Your task to perform on an android device: Open Wikipedia Image 0: 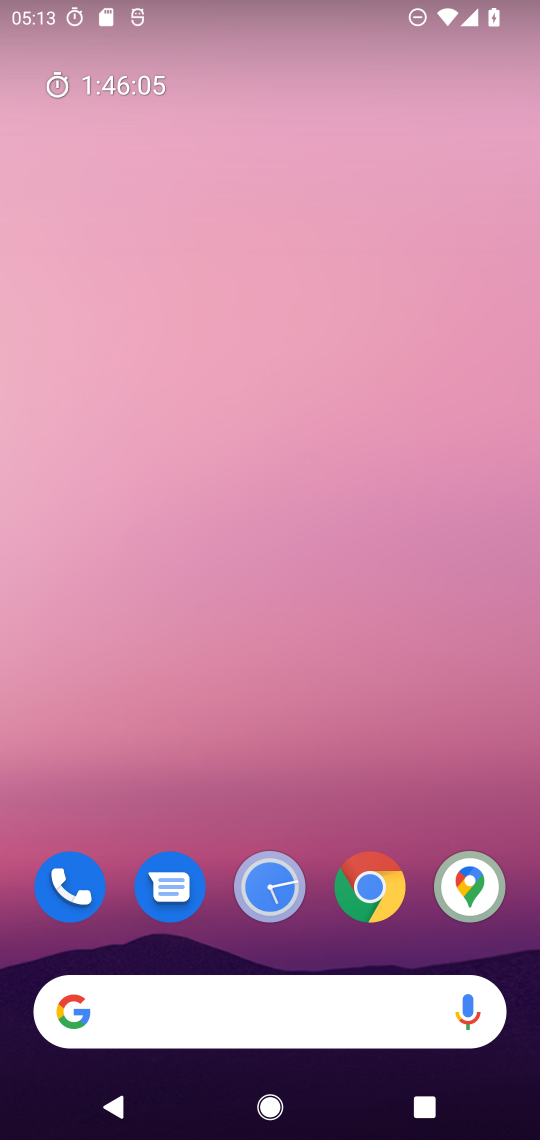
Step 0: press home button
Your task to perform on an android device: Open Wikipedia Image 1: 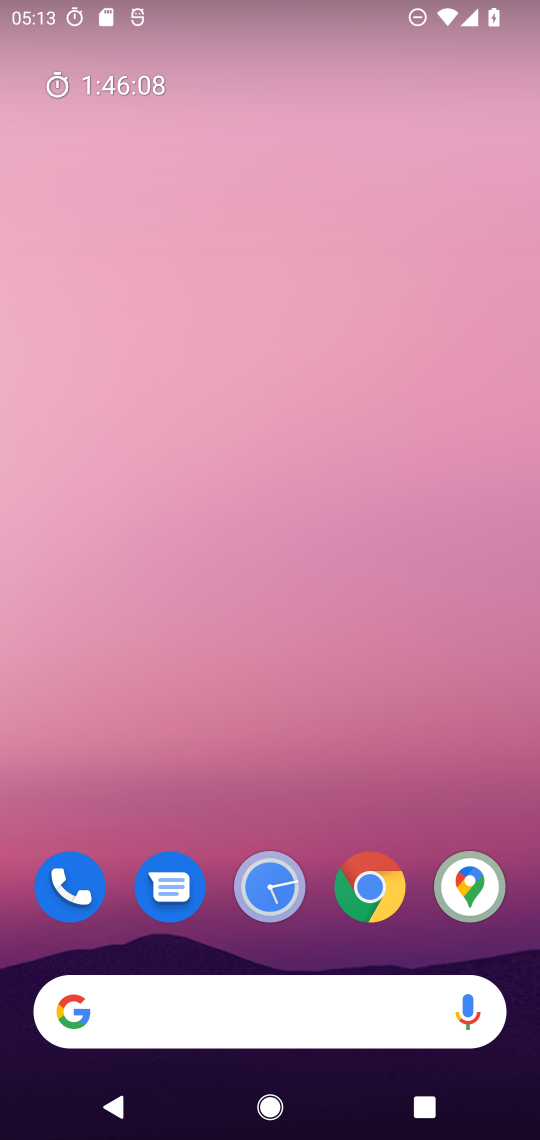
Step 1: drag from (414, 812) to (424, 341)
Your task to perform on an android device: Open Wikipedia Image 2: 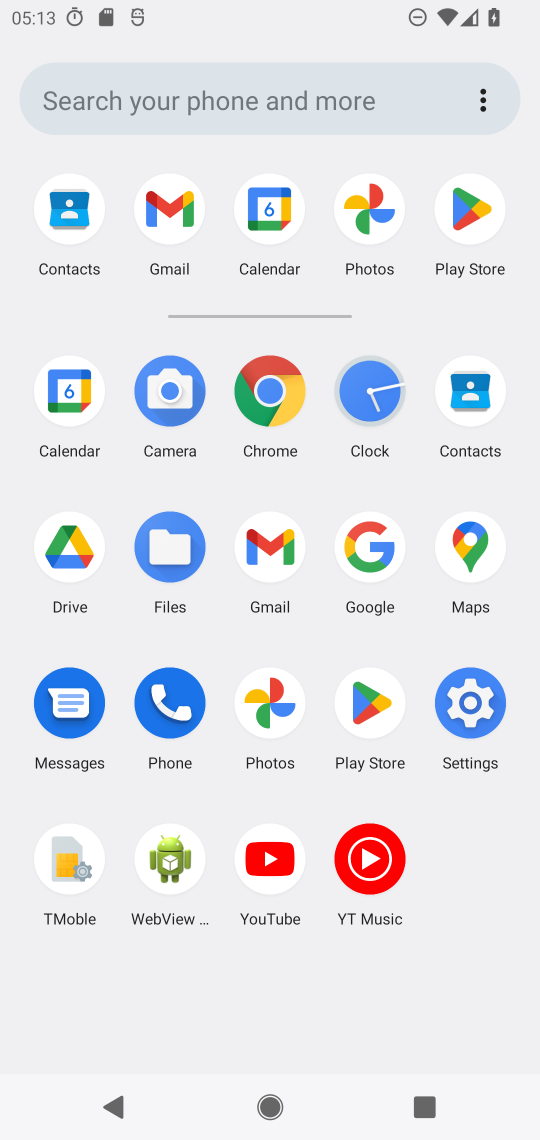
Step 2: click (266, 387)
Your task to perform on an android device: Open Wikipedia Image 3: 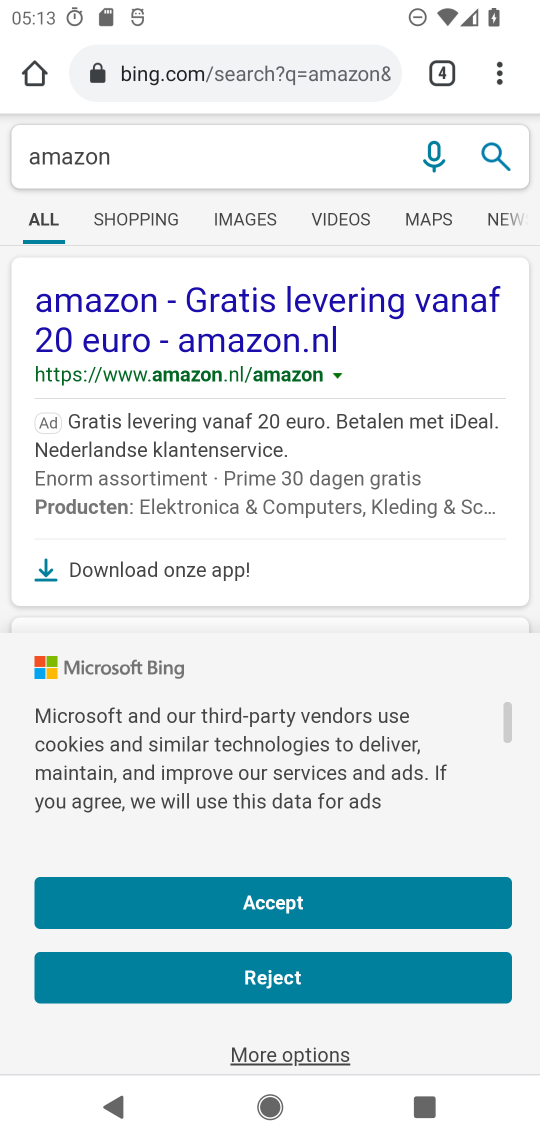
Step 3: click (283, 68)
Your task to perform on an android device: Open Wikipedia Image 4: 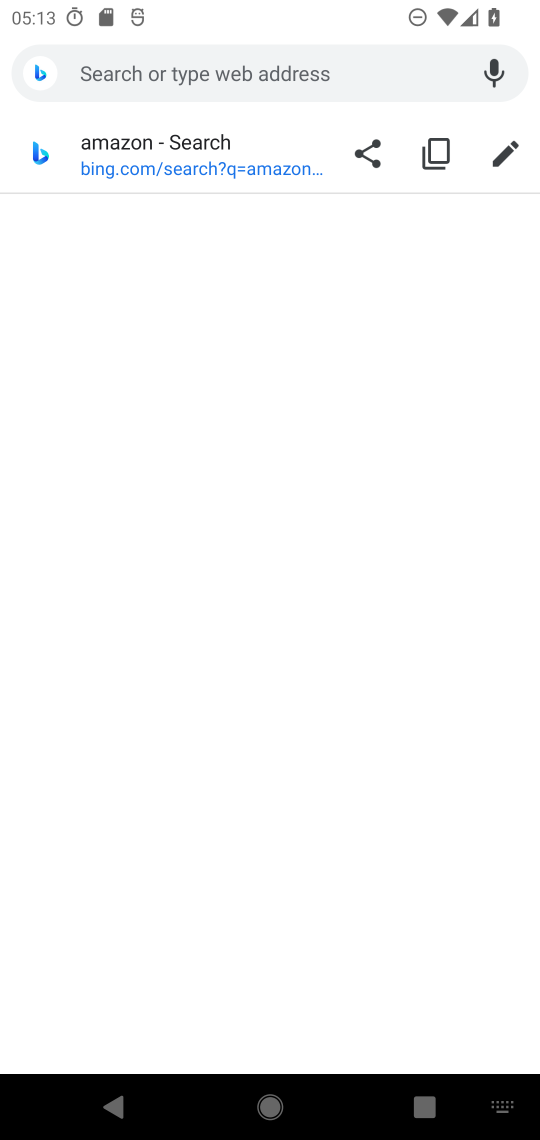
Step 4: type "wikipedia"
Your task to perform on an android device: Open Wikipedia Image 5: 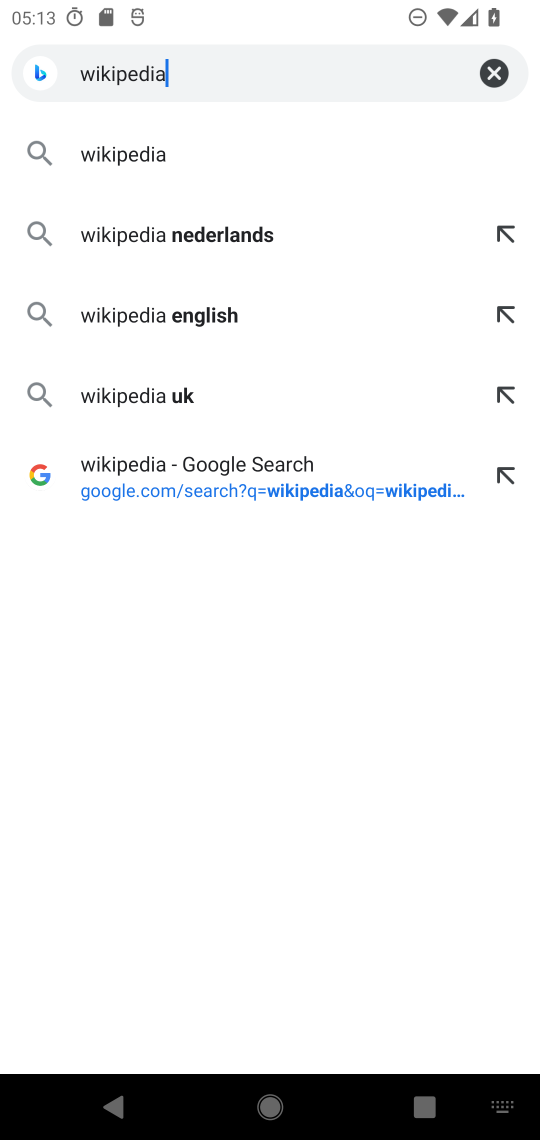
Step 5: click (204, 162)
Your task to perform on an android device: Open Wikipedia Image 6: 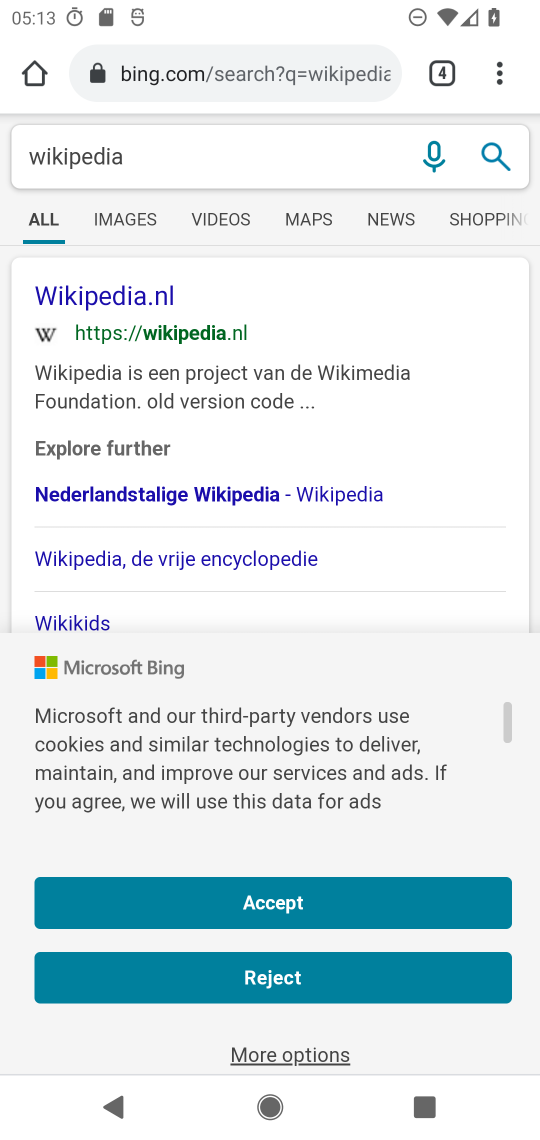
Step 6: task complete